Your task to perform on an android device: What is the news today? Image 0: 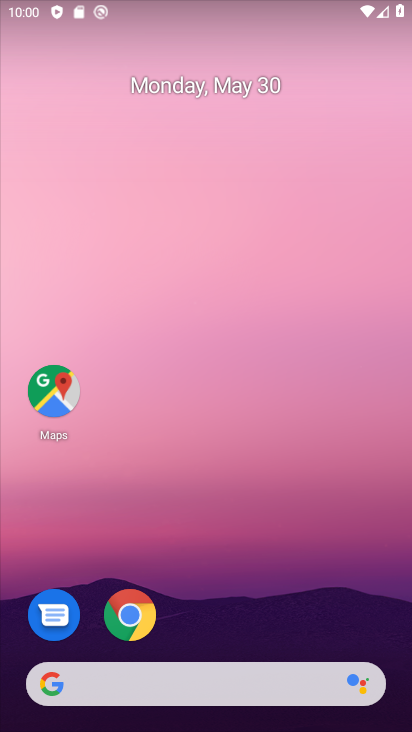
Step 0: drag from (194, 725) to (217, 123)
Your task to perform on an android device: What is the news today? Image 1: 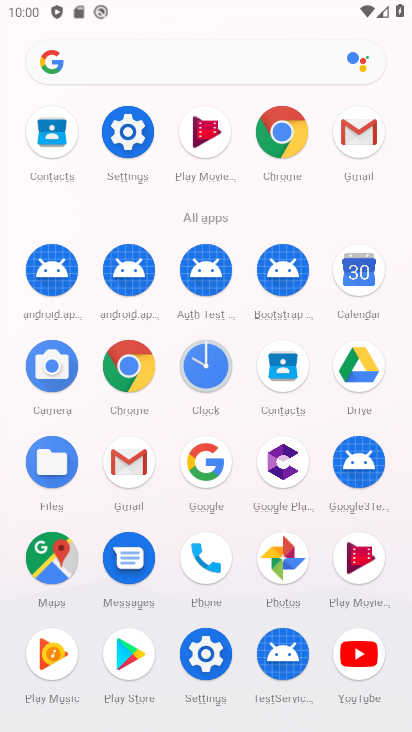
Step 1: task complete